Your task to perform on an android device: turn off javascript in the chrome app Image 0: 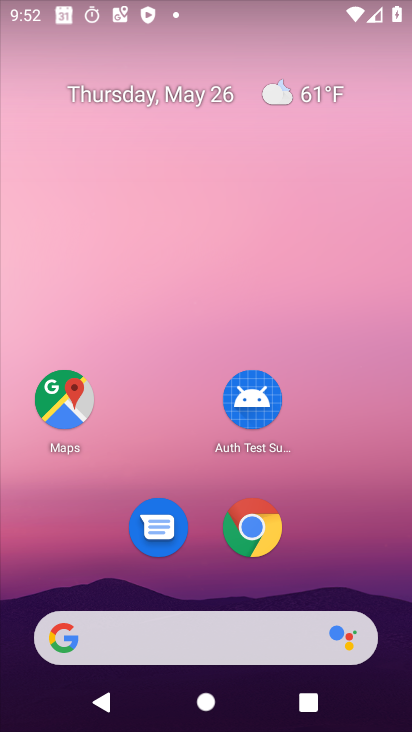
Step 0: drag from (367, 517) to (398, 76)
Your task to perform on an android device: turn off javascript in the chrome app Image 1: 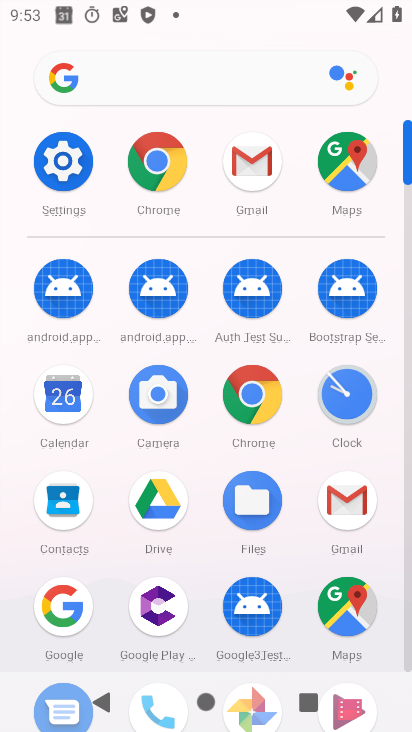
Step 1: click (147, 165)
Your task to perform on an android device: turn off javascript in the chrome app Image 2: 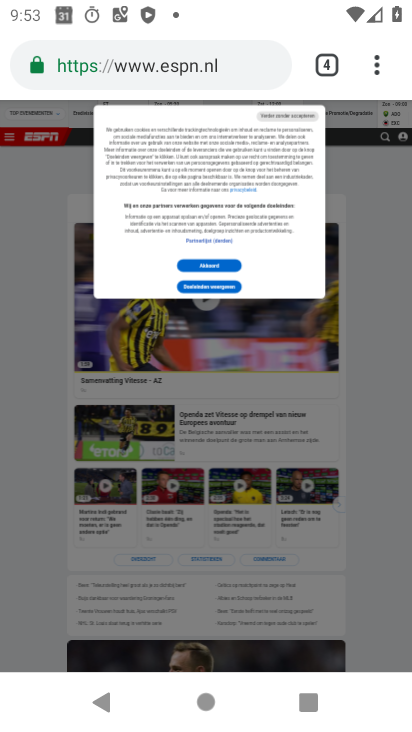
Step 2: drag from (379, 71) to (167, 582)
Your task to perform on an android device: turn off javascript in the chrome app Image 3: 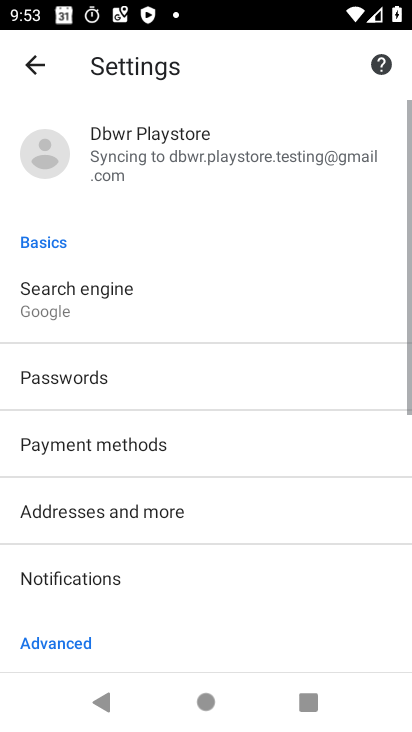
Step 3: drag from (149, 579) to (186, 209)
Your task to perform on an android device: turn off javascript in the chrome app Image 4: 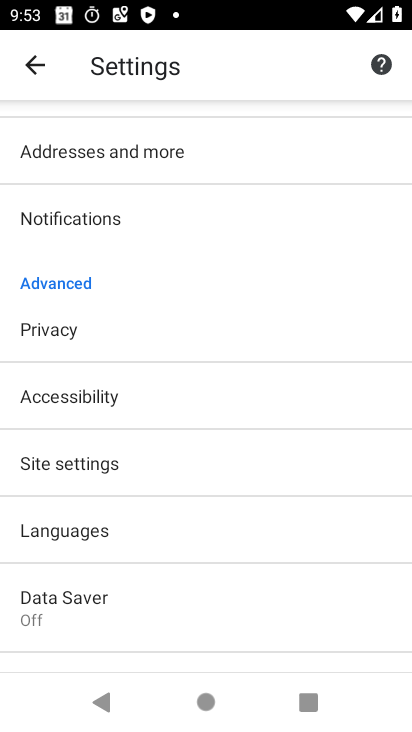
Step 4: click (97, 469)
Your task to perform on an android device: turn off javascript in the chrome app Image 5: 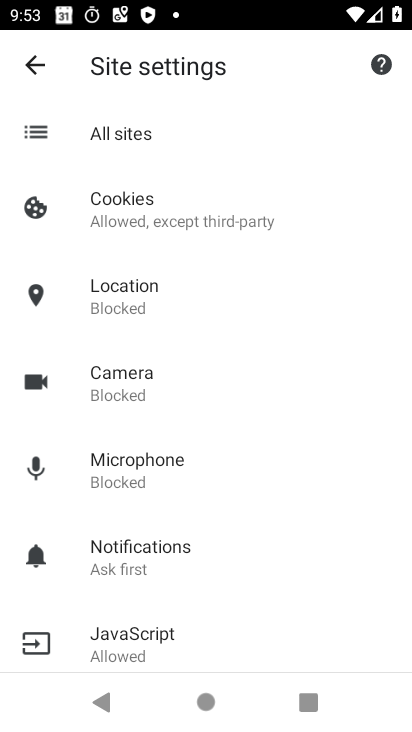
Step 5: drag from (170, 648) to (234, 240)
Your task to perform on an android device: turn off javascript in the chrome app Image 6: 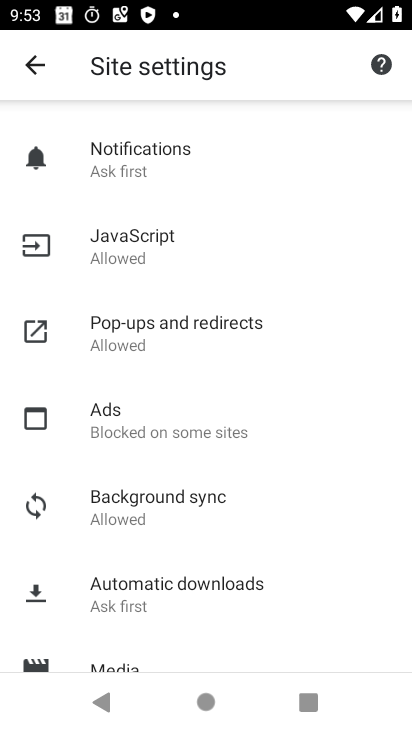
Step 6: click (157, 239)
Your task to perform on an android device: turn off javascript in the chrome app Image 7: 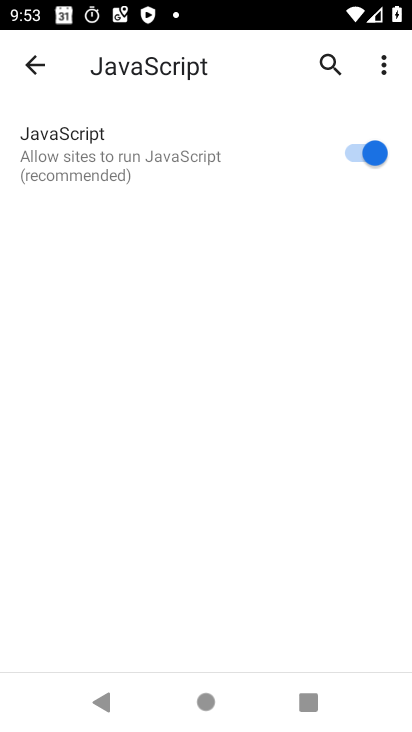
Step 7: click (369, 144)
Your task to perform on an android device: turn off javascript in the chrome app Image 8: 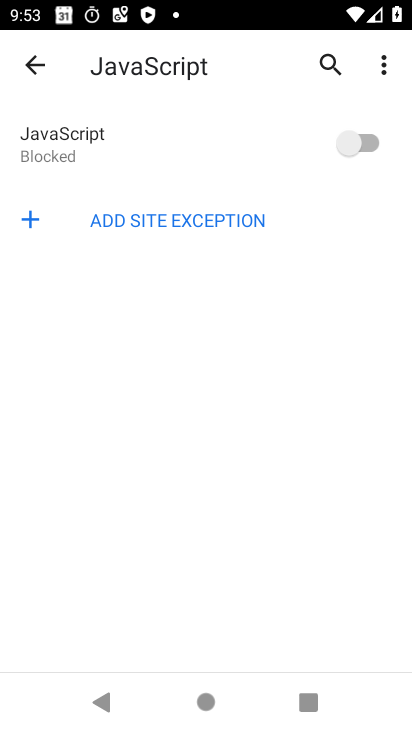
Step 8: task complete